Your task to perform on an android device: turn off notifications in google photos Image 0: 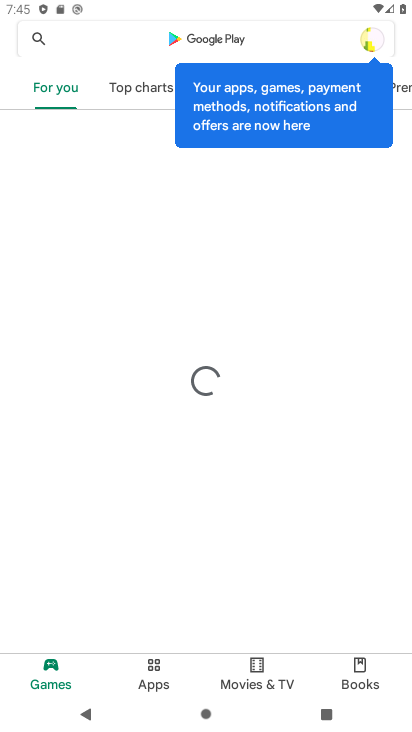
Step 0: press home button
Your task to perform on an android device: turn off notifications in google photos Image 1: 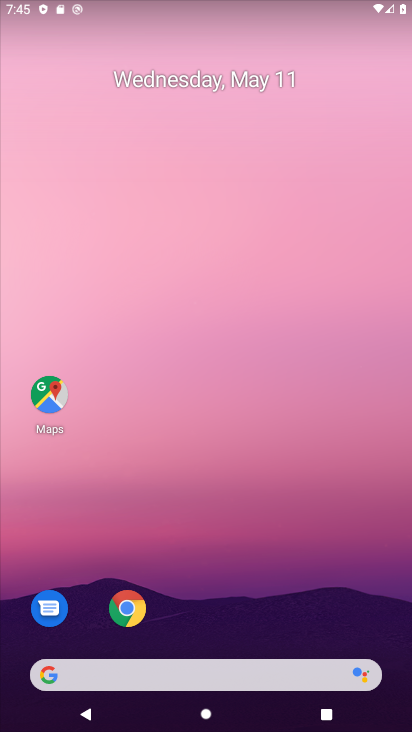
Step 1: drag from (283, 598) to (255, 124)
Your task to perform on an android device: turn off notifications in google photos Image 2: 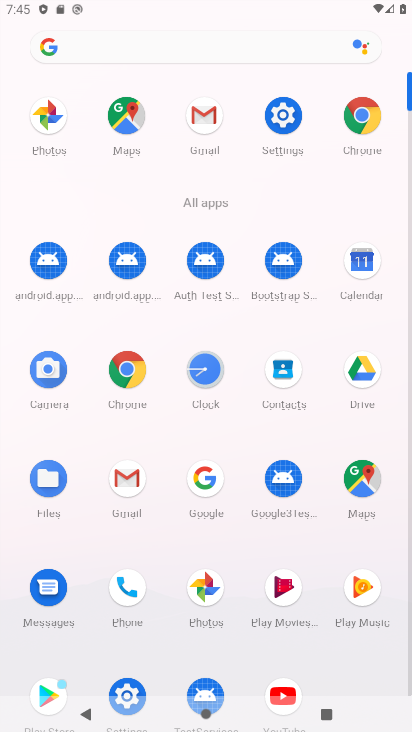
Step 2: click (207, 590)
Your task to perform on an android device: turn off notifications in google photos Image 3: 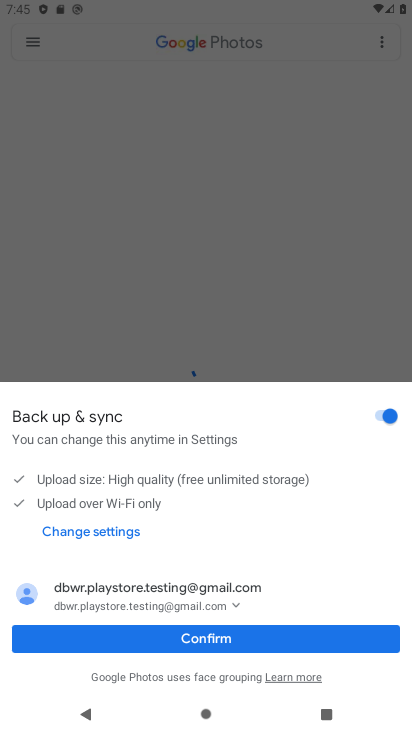
Step 3: click (198, 632)
Your task to perform on an android device: turn off notifications in google photos Image 4: 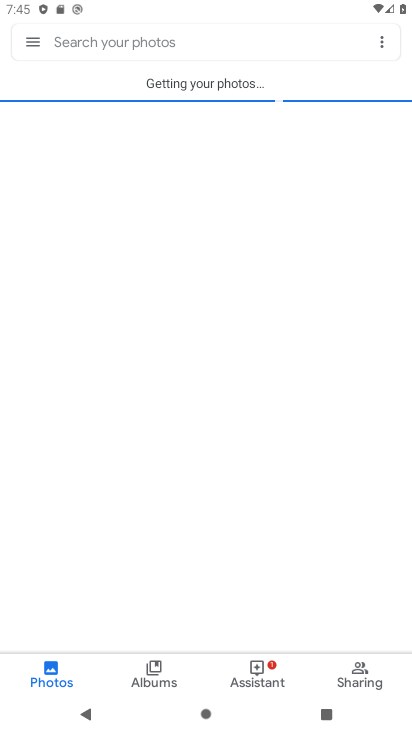
Step 4: click (21, 53)
Your task to perform on an android device: turn off notifications in google photos Image 5: 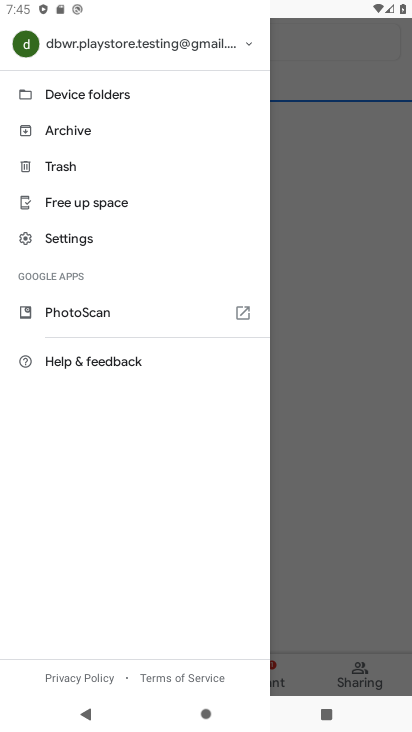
Step 5: click (89, 251)
Your task to perform on an android device: turn off notifications in google photos Image 6: 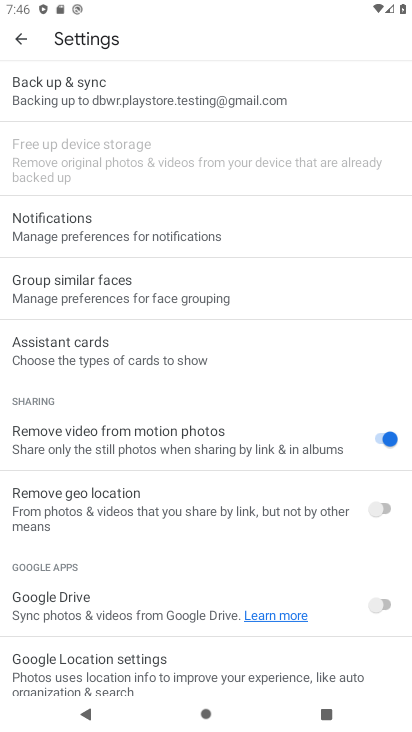
Step 6: click (89, 251)
Your task to perform on an android device: turn off notifications in google photos Image 7: 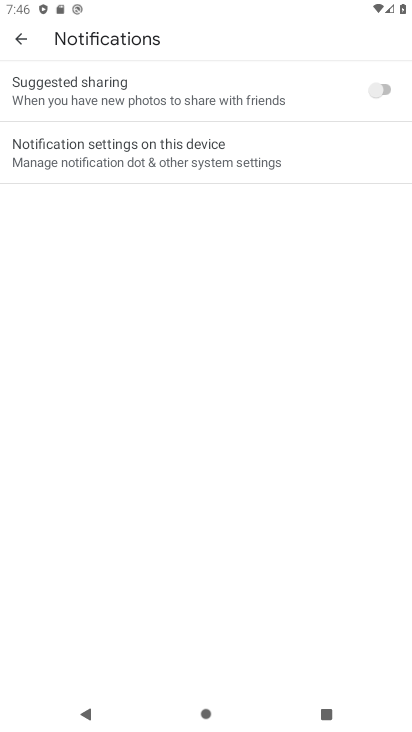
Step 7: click (265, 98)
Your task to perform on an android device: turn off notifications in google photos Image 8: 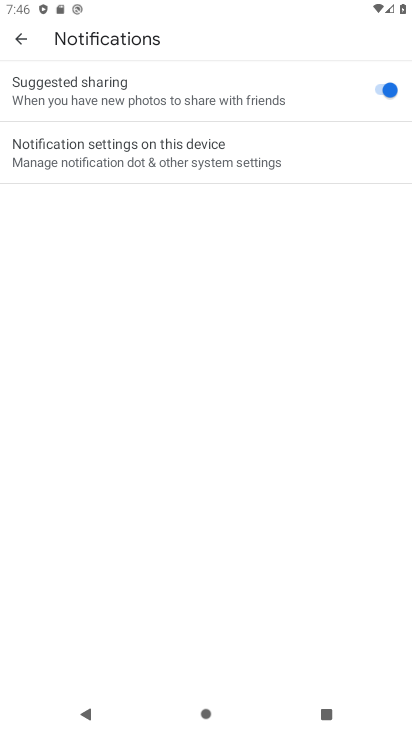
Step 8: task complete